Your task to perform on an android device: delete browsing data in the chrome app Image 0: 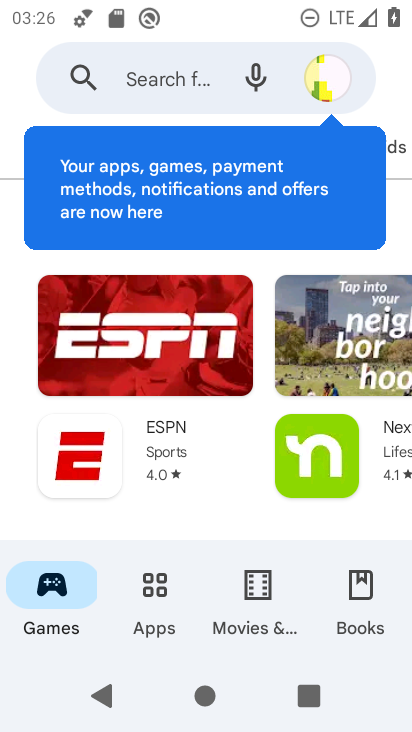
Step 0: press home button
Your task to perform on an android device: delete browsing data in the chrome app Image 1: 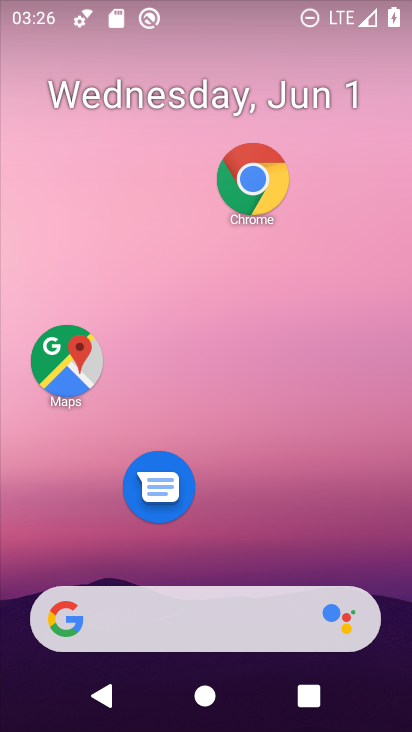
Step 1: drag from (284, 545) to (313, 227)
Your task to perform on an android device: delete browsing data in the chrome app Image 2: 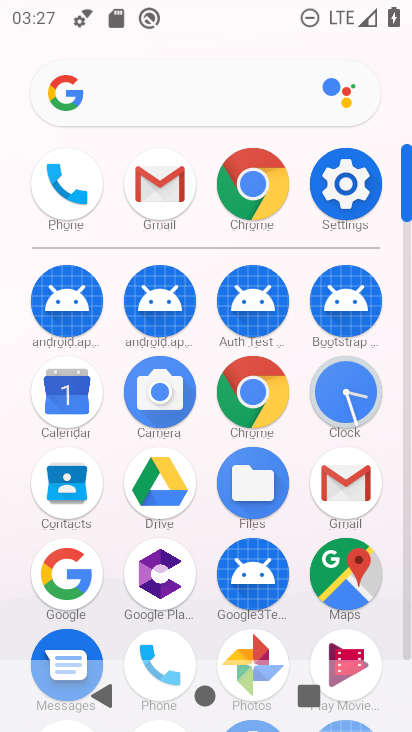
Step 2: click (264, 173)
Your task to perform on an android device: delete browsing data in the chrome app Image 3: 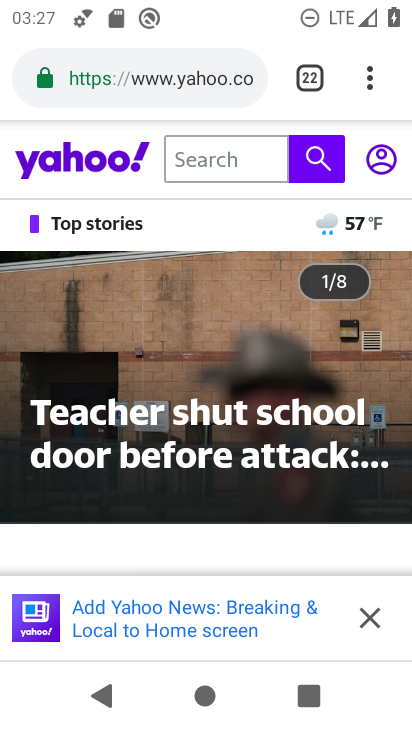
Step 3: click (371, 66)
Your task to perform on an android device: delete browsing data in the chrome app Image 4: 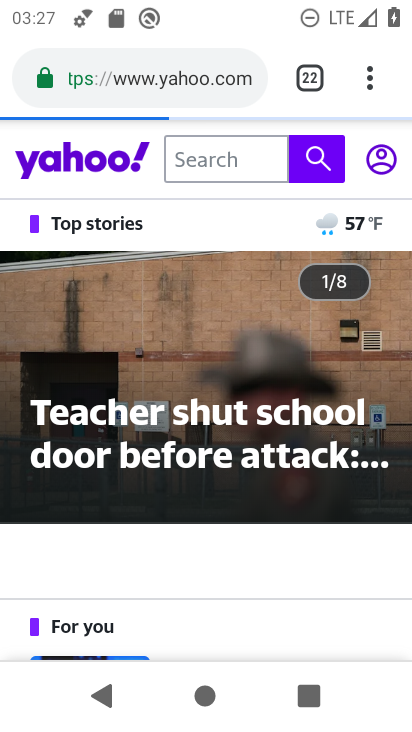
Step 4: click (373, 73)
Your task to perform on an android device: delete browsing data in the chrome app Image 5: 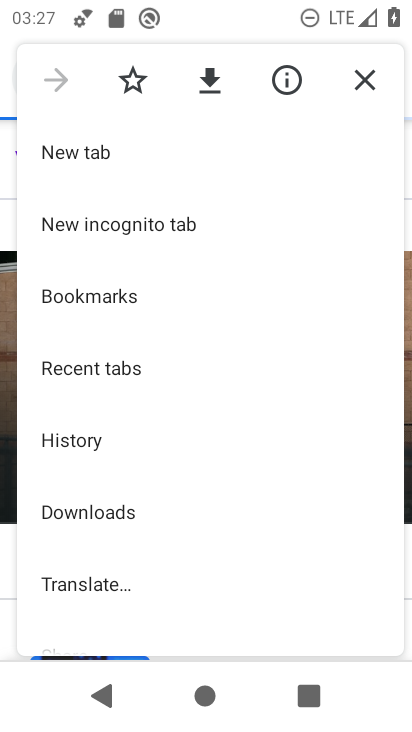
Step 5: drag from (183, 533) to (218, 218)
Your task to perform on an android device: delete browsing data in the chrome app Image 6: 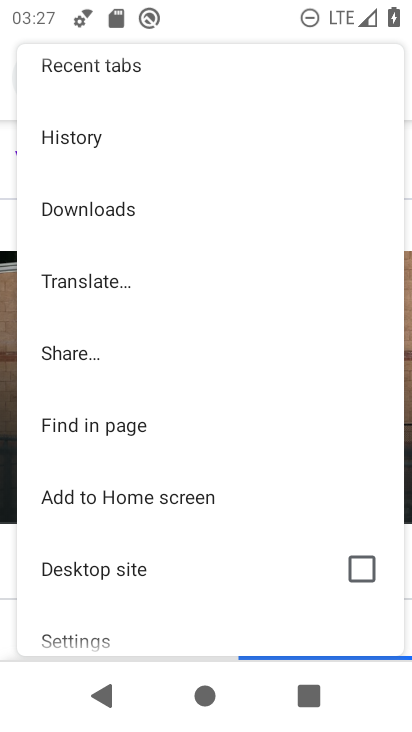
Step 6: drag from (152, 523) to (181, 309)
Your task to perform on an android device: delete browsing data in the chrome app Image 7: 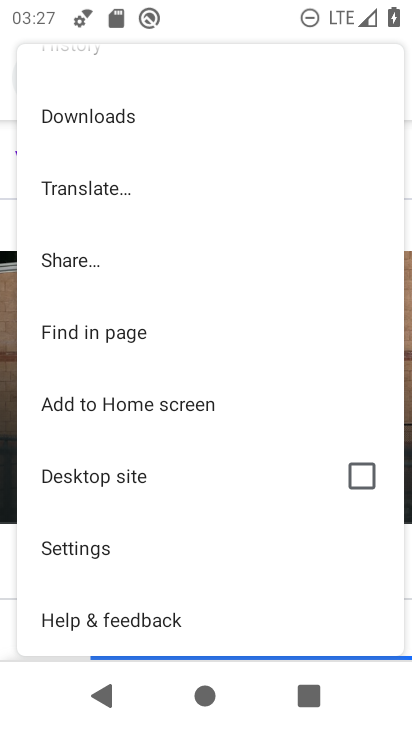
Step 7: click (116, 530)
Your task to perform on an android device: delete browsing data in the chrome app Image 8: 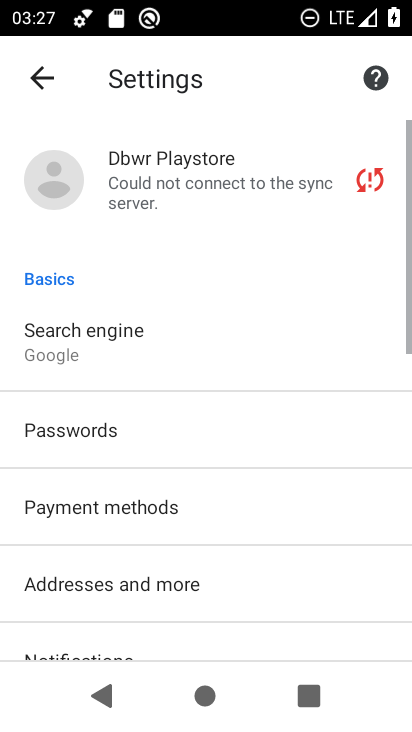
Step 8: drag from (146, 484) to (191, 192)
Your task to perform on an android device: delete browsing data in the chrome app Image 9: 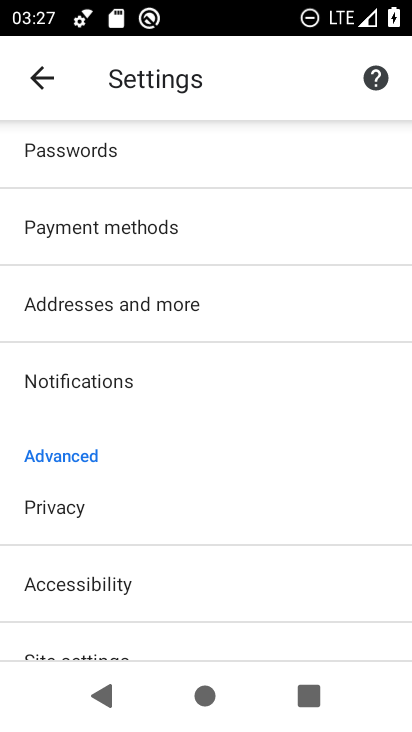
Step 9: click (110, 516)
Your task to perform on an android device: delete browsing data in the chrome app Image 10: 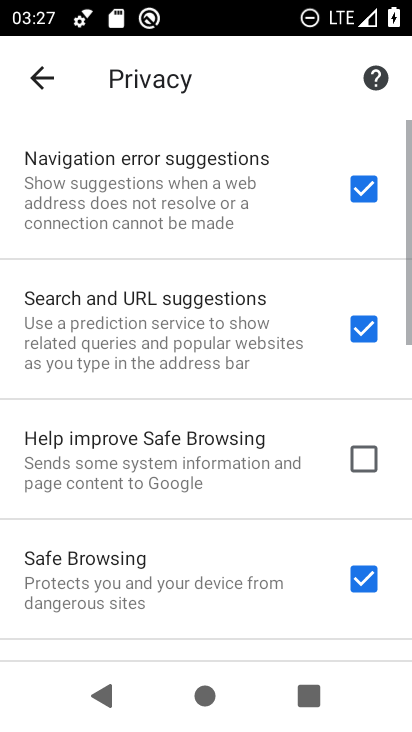
Step 10: drag from (187, 568) to (234, 147)
Your task to perform on an android device: delete browsing data in the chrome app Image 11: 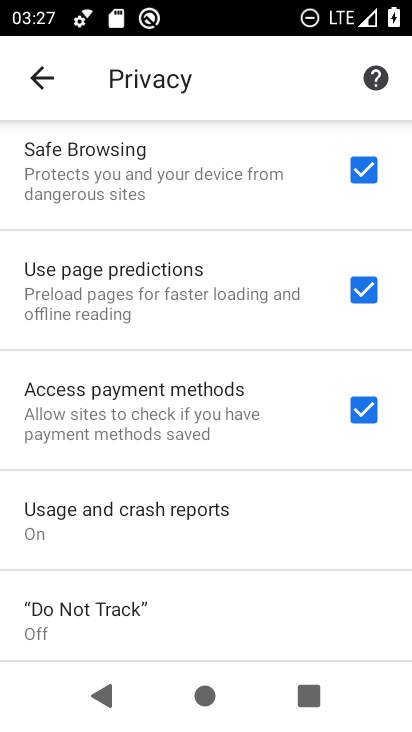
Step 11: drag from (182, 536) to (244, 230)
Your task to perform on an android device: delete browsing data in the chrome app Image 12: 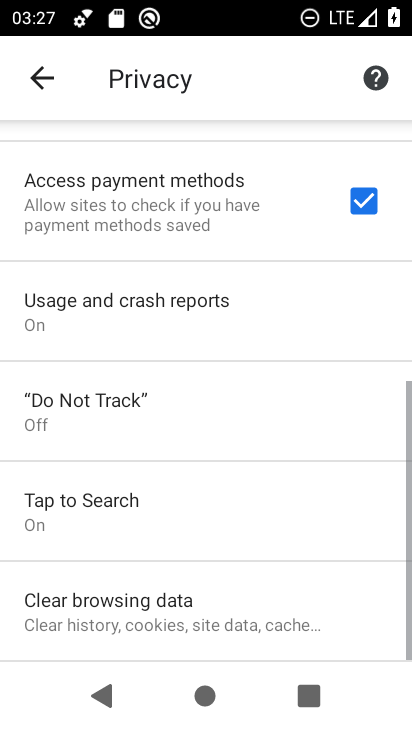
Step 12: click (200, 617)
Your task to perform on an android device: delete browsing data in the chrome app Image 13: 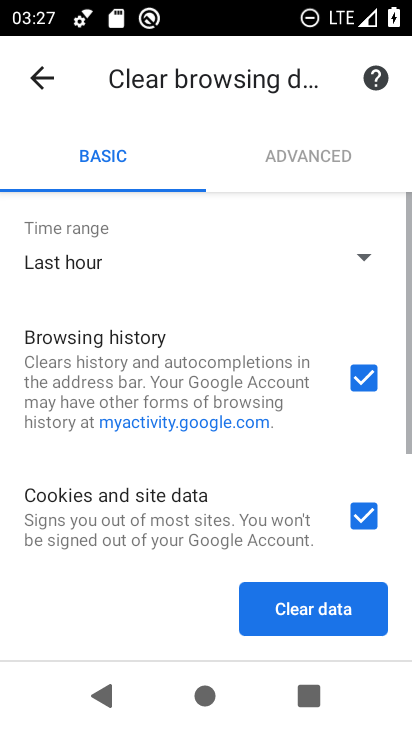
Step 13: click (299, 600)
Your task to perform on an android device: delete browsing data in the chrome app Image 14: 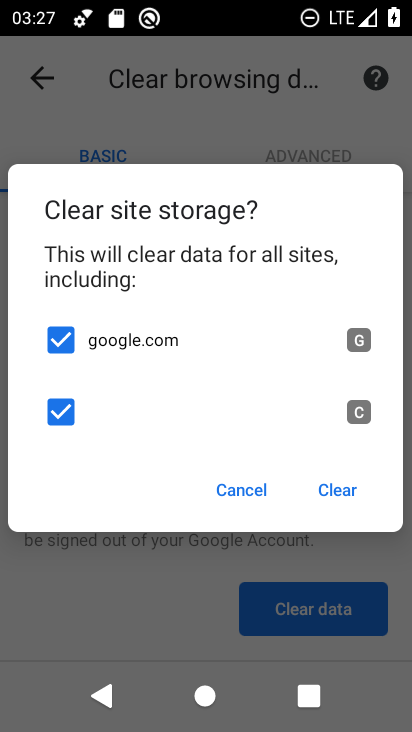
Step 14: click (321, 493)
Your task to perform on an android device: delete browsing data in the chrome app Image 15: 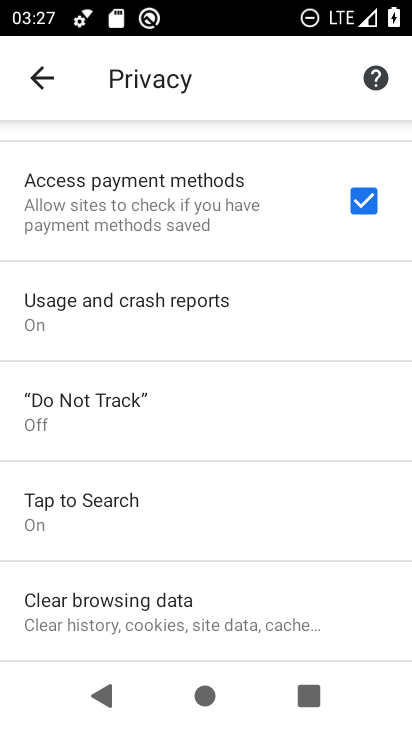
Step 15: task complete